Your task to perform on an android device: turn on improve location accuracy Image 0: 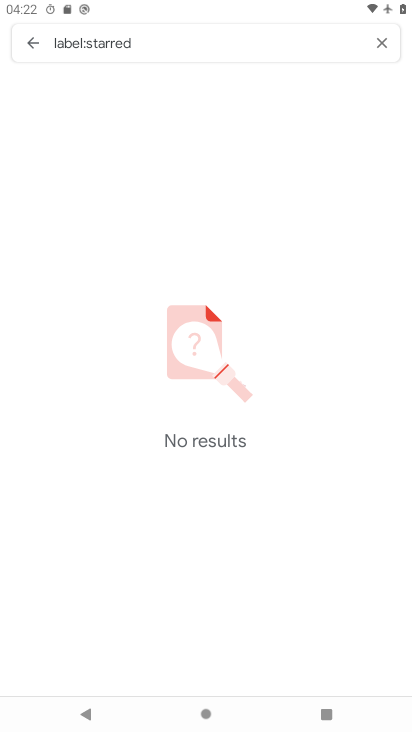
Step 0: press home button
Your task to perform on an android device: turn on improve location accuracy Image 1: 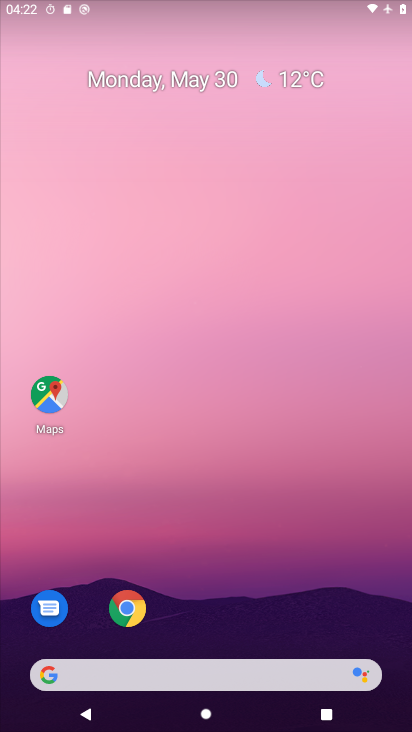
Step 1: drag from (301, 475) to (174, 23)
Your task to perform on an android device: turn on improve location accuracy Image 2: 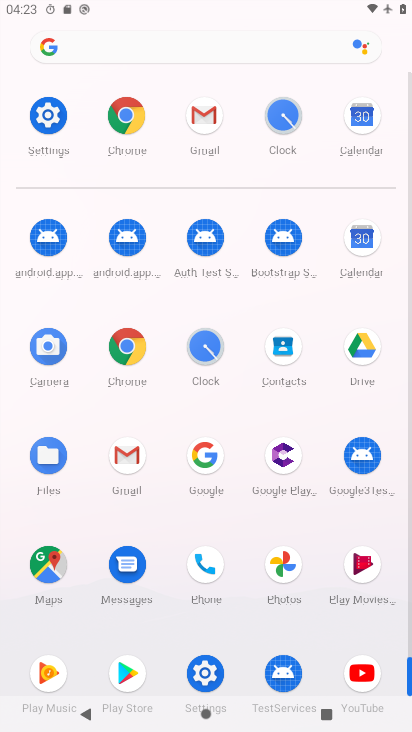
Step 2: click (36, 112)
Your task to perform on an android device: turn on improve location accuracy Image 3: 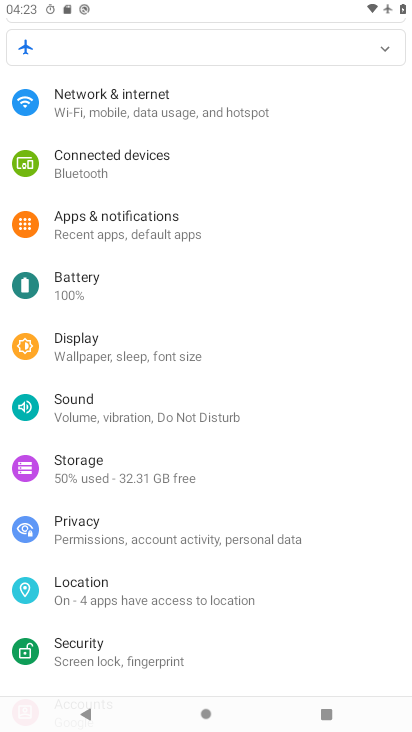
Step 3: click (183, 576)
Your task to perform on an android device: turn on improve location accuracy Image 4: 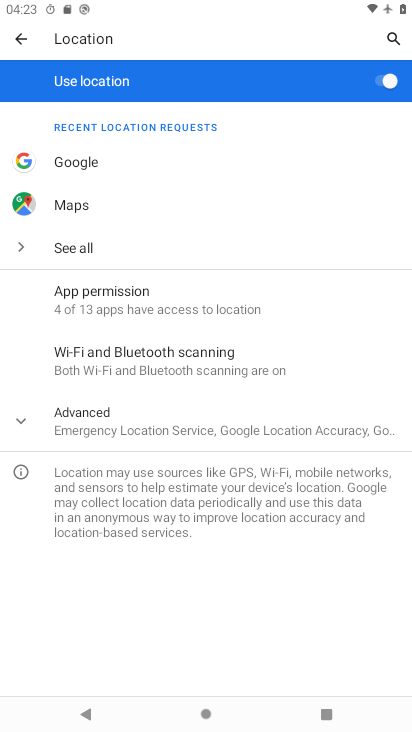
Step 4: click (165, 422)
Your task to perform on an android device: turn on improve location accuracy Image 5: 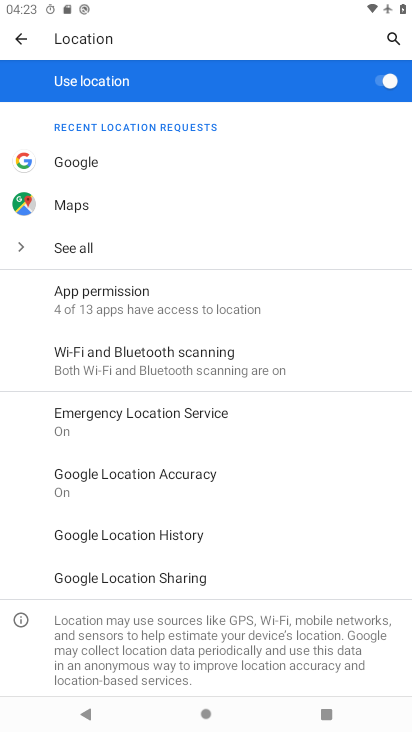
Step 5: click (218, 476)
Your task to perform on an android device: turn on improve location accuracy Image 6: 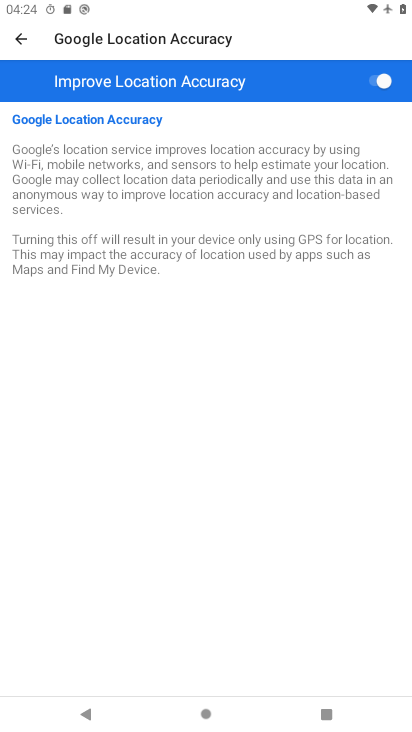
Step 6: task complete